Your task to perform on an android device: allow notifications from all sites in the chrome app Image 0: 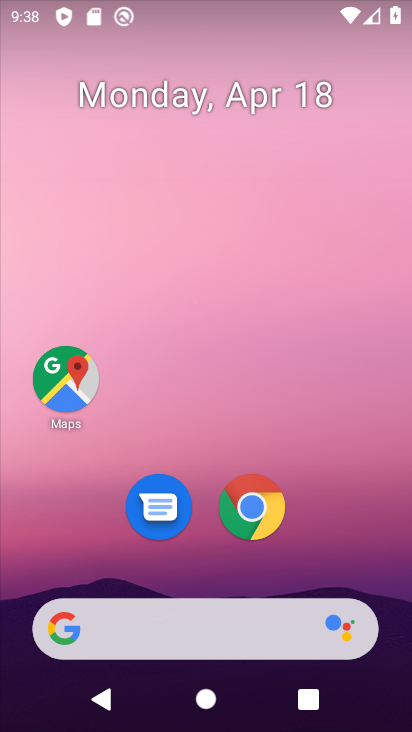
Step 0: click (245, 504)
Your task to perform on an android device: allow notifications from all sites in the chrome app Image 1: 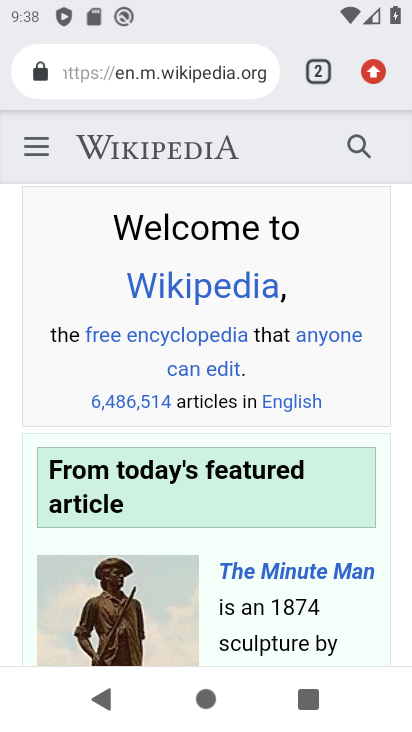
Step 1: click (376, 76)
Your task to perform on an android device: allow notifications from all sites in the chrome app Image 2: 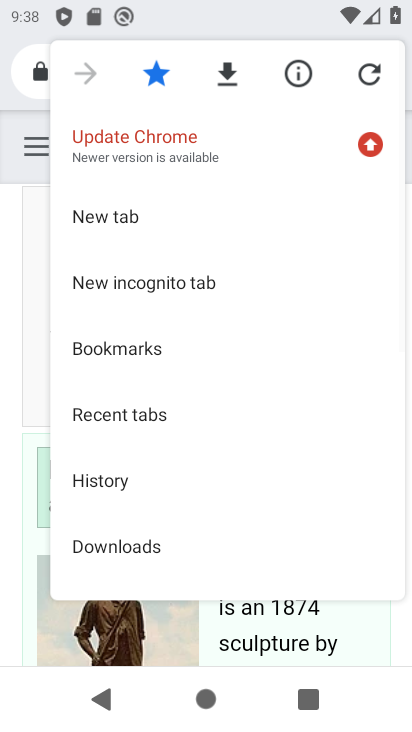
Step 2: drag from (169, 521) to (156, 189)
Your task to perform on an android device: allow notifications from all sites in the chrome app Image 3: 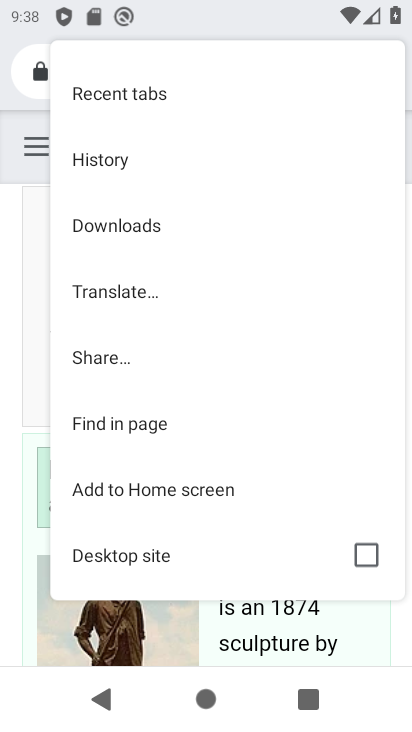
Step 3: drag from (162, 535) to (145, 166)
Your task to perform on an android device: allow notifications from all sites in the chrome app Image 4: 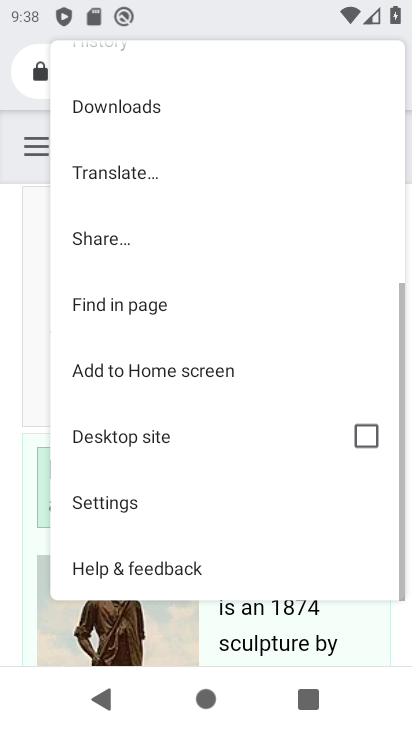
Step 4: click (132, 489)
Your task to perform on an android device: allow notifications from all sites in the chrome app Image 5: 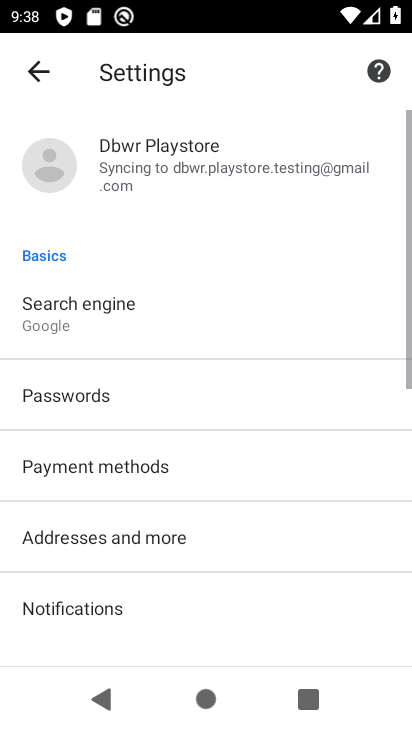
Step 5: drag from (143, 498) to (80, 104)
Your task to perform on an android device: allow notifications from all sites in the chrome app Image 6: 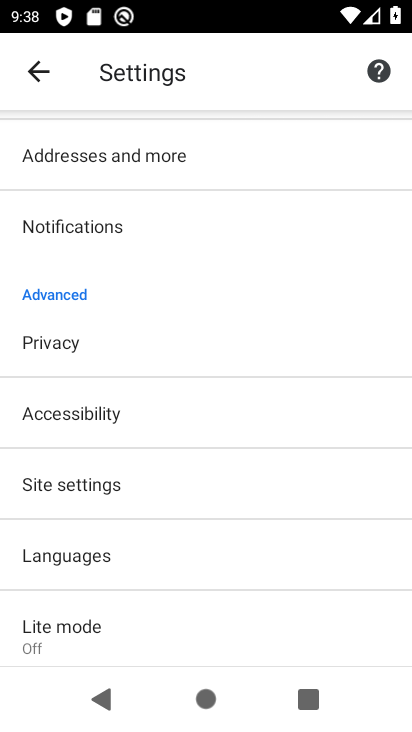
Step 6: click (73, 483)
Your task to perform on an android device: allow notifications from all sites in the chrome app Image 7: 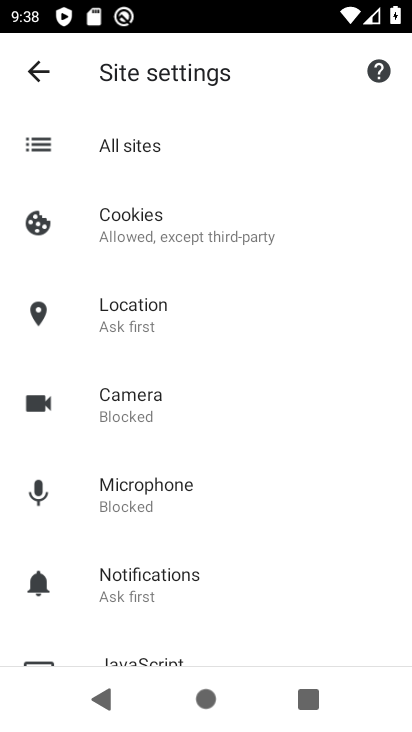
Step 7: click (173, 573)
Your task to perform on an android device: allow notifications from all sites in the chrome app Image 8: 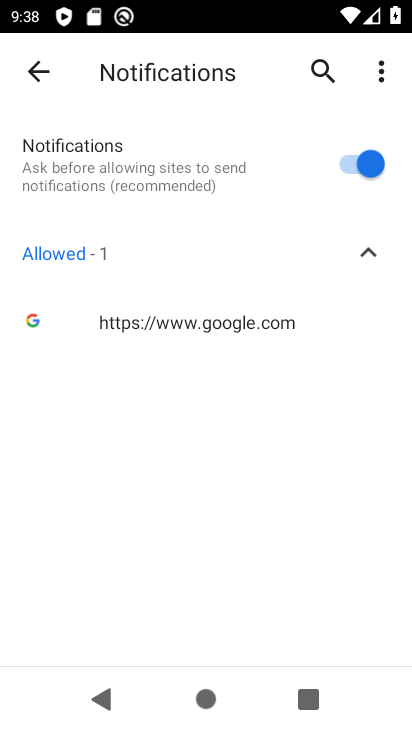
Step 8: task complete